Your task to perform on an android device: Do I have any events tomorrow? Image 0: 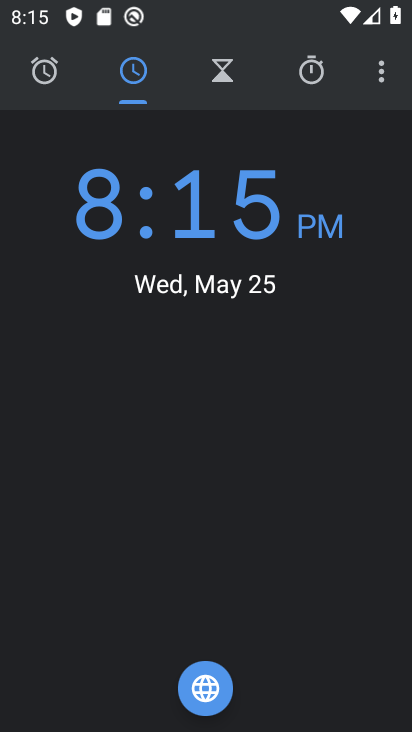
Step 0: press home button
Your task to perform on an android device: Do I have any events tomorrow? Image 1: 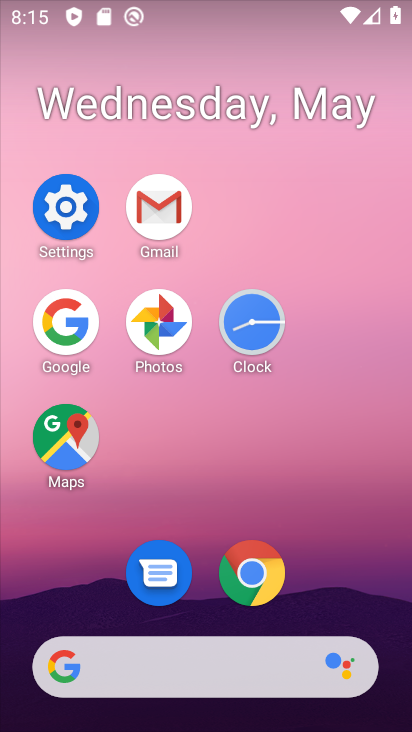
Step 1: drag from (352, 600) to (410, 28)
Your task to perform on an android device: Do I have any events tomorrow? Image 2: 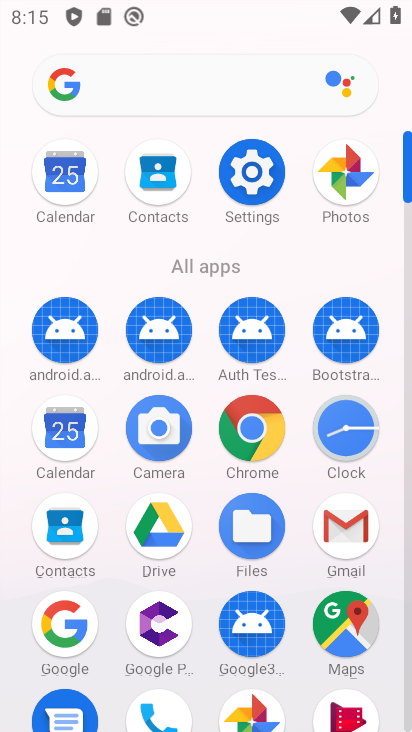
Step 2: click (42, 168)
Your task to perform on an android device: Do I have any events tomorrow? Image 3: 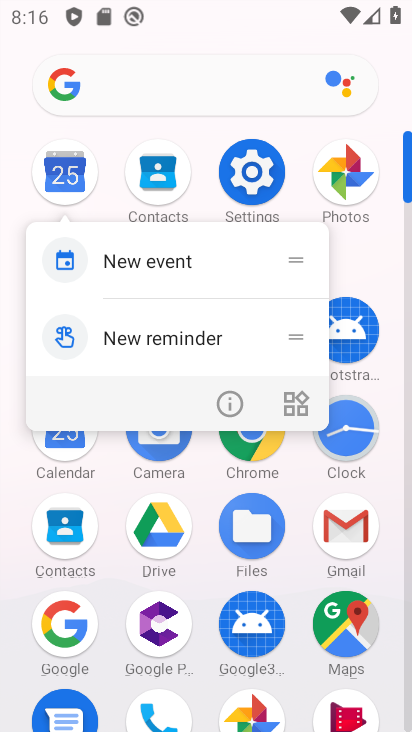
Step 3: drag from (54, 206) to (252, 225)
Your task to perform on an android device: Do I have any events tomorrow? Image 4: 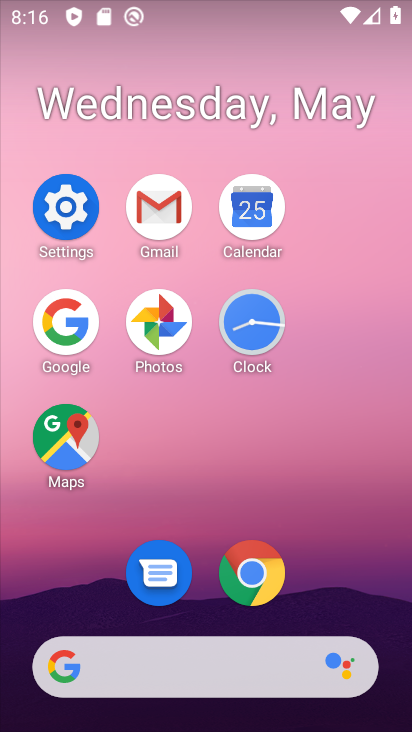
Step 4: click (239, 214)
Your task to perform on an android device: Do I have any events tomorrow? Image 5: 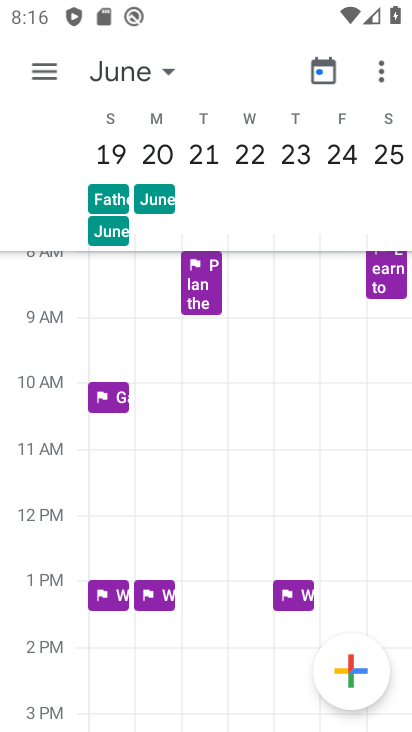
Step 5: click (139, 66)
Your task to perform on an android device: Do I have any events tomorrow? Image 6: 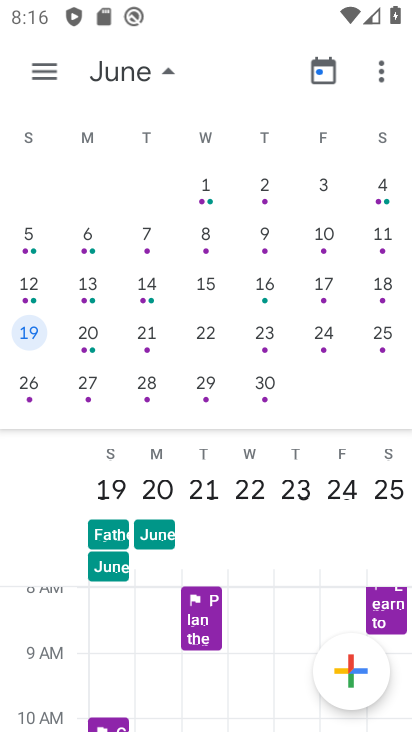
Step 6: drag from (35, 282) to (404, 226)
Your task to perform on an android device: Do I have any events tomorrow? Image 7: 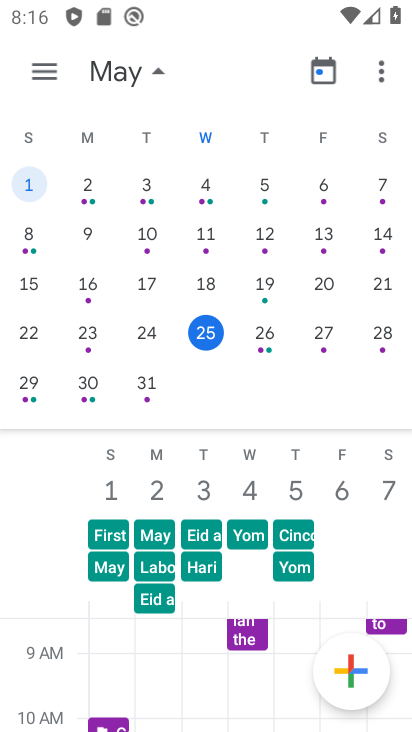
Step 7: drag from (89, 250) to (222, 259)
Your task to perform on an android device: Do I have any events tomorrow? Image 8: 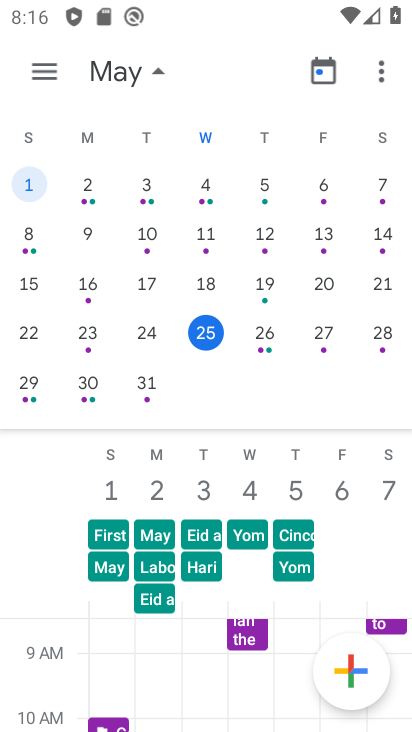
Step 8: click (327, 333)
Your task to perform on an android device: Do I have any events tomorrow? Image 9: 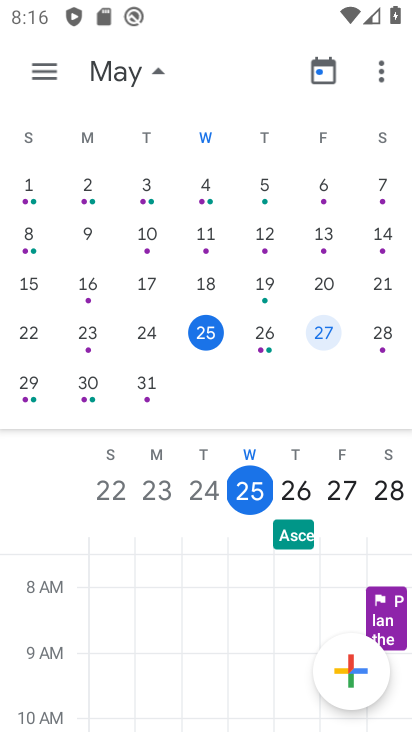
Step 9: click (348, 481)
Your task to perform on an android device: Do I have any events tomorrow? Image 10: 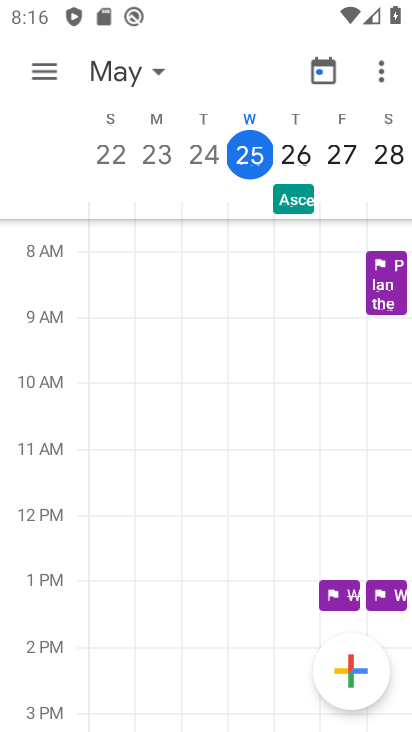
Step 10: task complete